Your task to perform on an android device: Search for the best way to get rid of a cold Image 0: 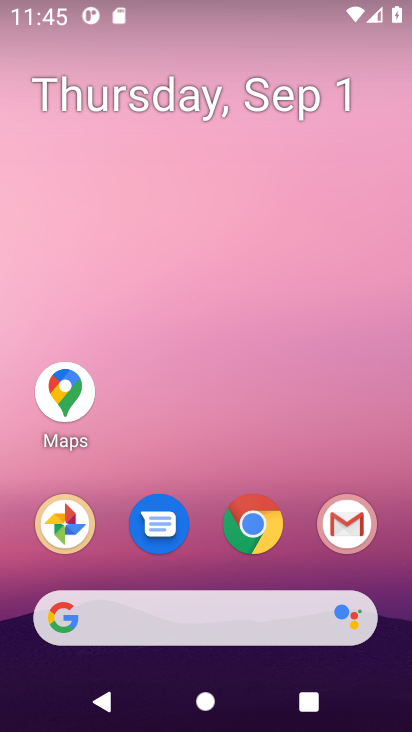
Step 0: click (209, 617)
Your task to perform on an android device: Search for the best way to get rid of a cold Image 1: 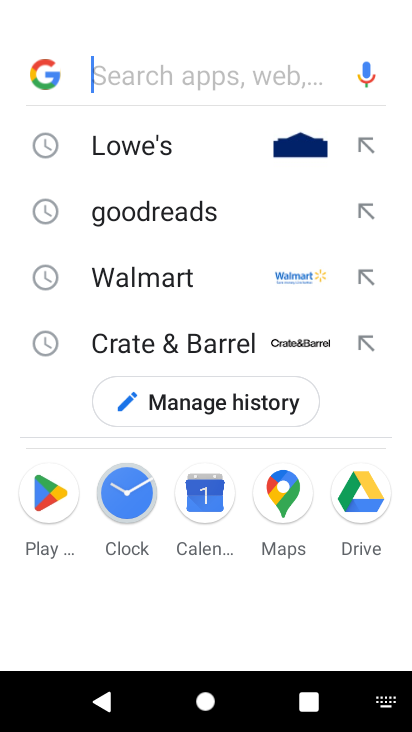
Step 1: press enter
Your task to perform on an android device: Search for the best way to get rid of a cold Image 2: 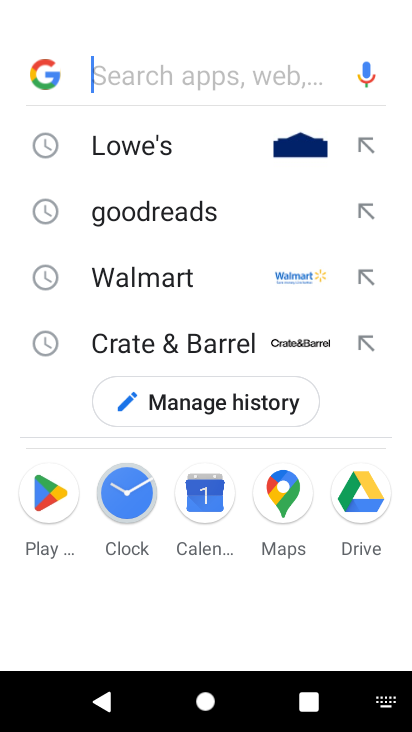
Step 2: type " best way to get rid of a cold"
Your task to perform on an android device: Search for the best way to get rid of a cold Image 3: 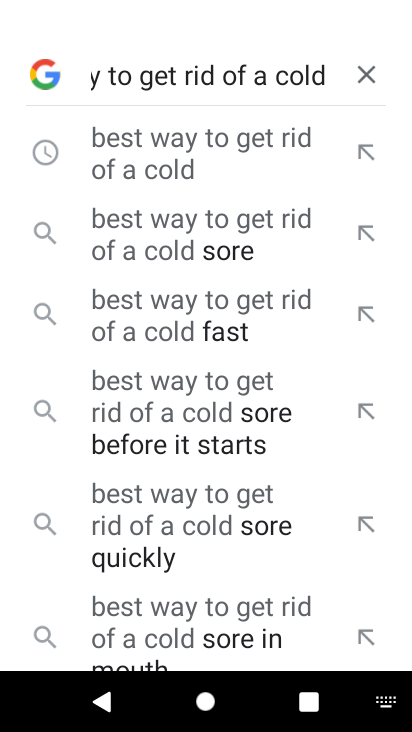
Step 3: click (252, 138)
Your task to perform on an android device: Search for the best way to get rid of a cold Image 4: 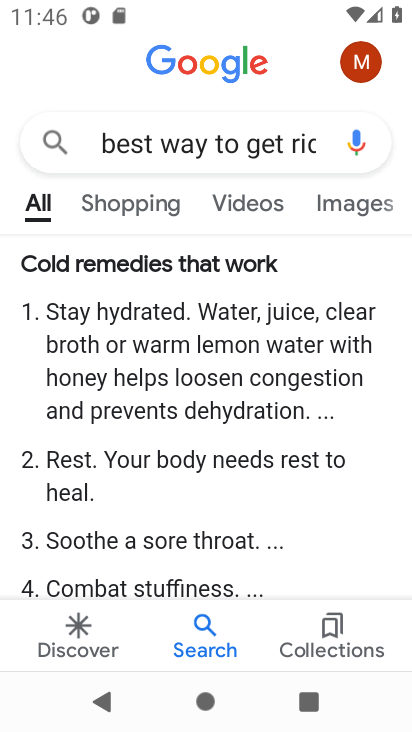
Step 4: task complete